Your task to perform on an android device: toggle pop-ups in chrome Image 0: 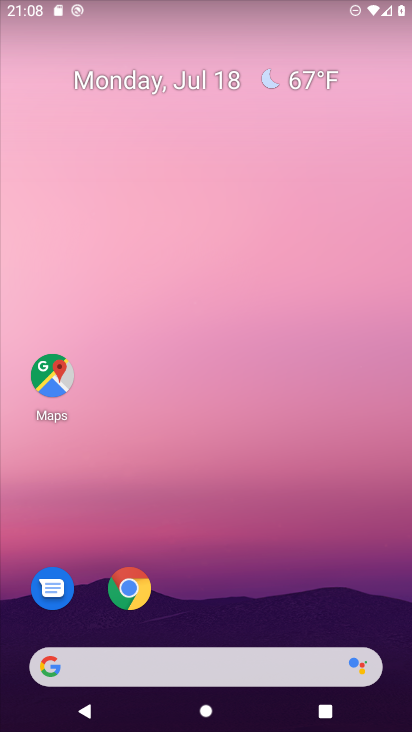
Step 0: click (130, 588)
Your task to perform on an android device: toggle pop-ups in chrome Image 1: 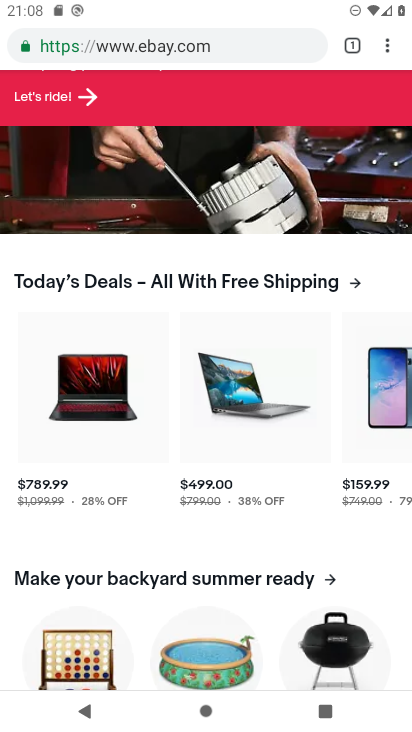
Step 1: click (384, 52)
Your task to perform on an android device: toggle pop-ups in chrome Image 2: 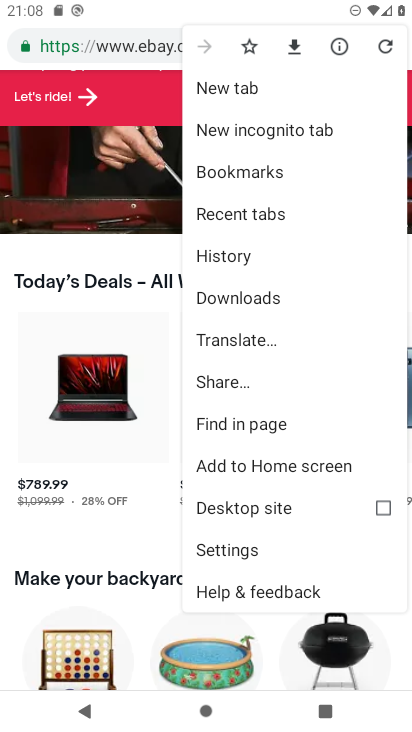
Step 2: click (233, 550)
Your task to perform on an android device: toggle pop-ups in chrome Image 3: 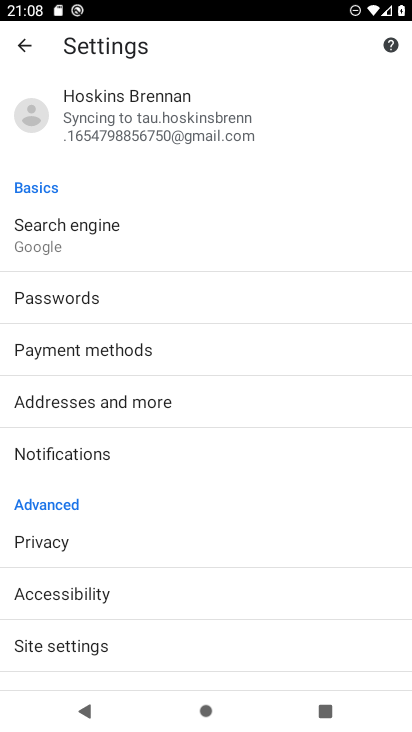
Step 3: drag from (190, 624) to (184, 369)
Your task to perform on an android device: toggle pop-ups in chrome Image 4: 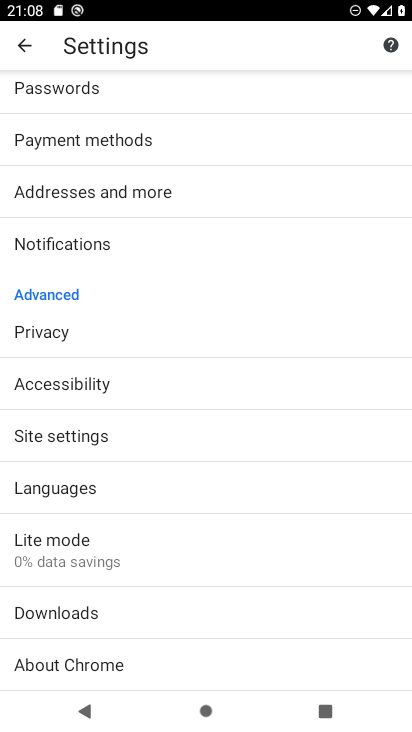
Step 4: click (66, 434)
Your task to perform on an android device: toggle pop-ups in chrome Image 5: 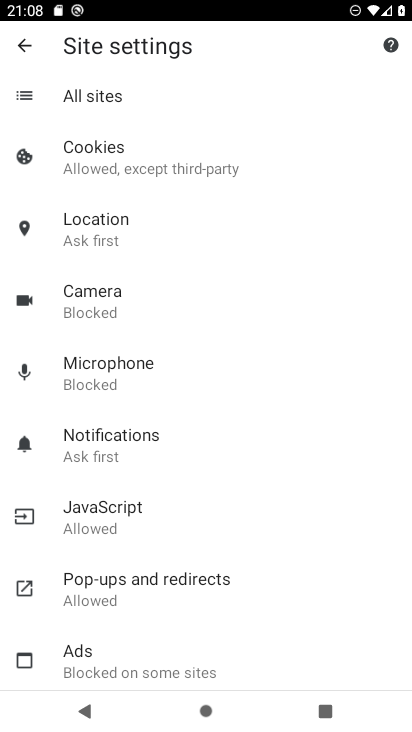
Step 5: click (117, 575)
Your task to perform on an android device: toggle pop-ups in chrome Image 6: 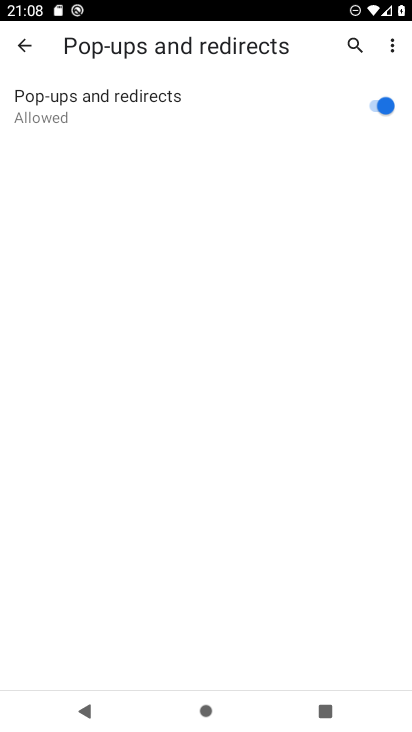
Step 6: click (371, 103)
Your task to perform on an android device: toggle pop-ups in chrome Image 7: 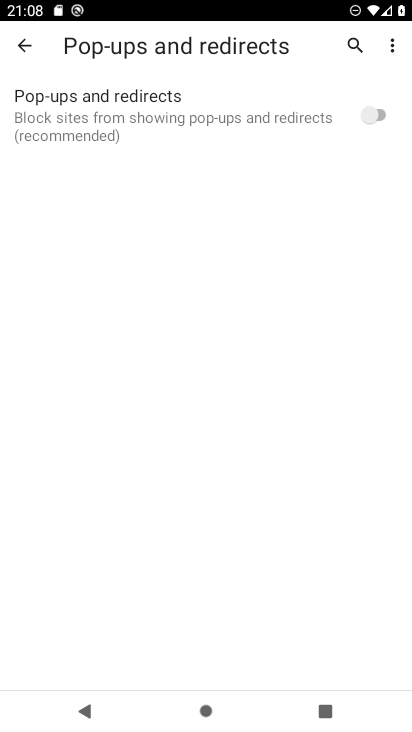
Step 7: task complete